Your task to perform on an android device: Go to calendar. Show me events next week Image 0: 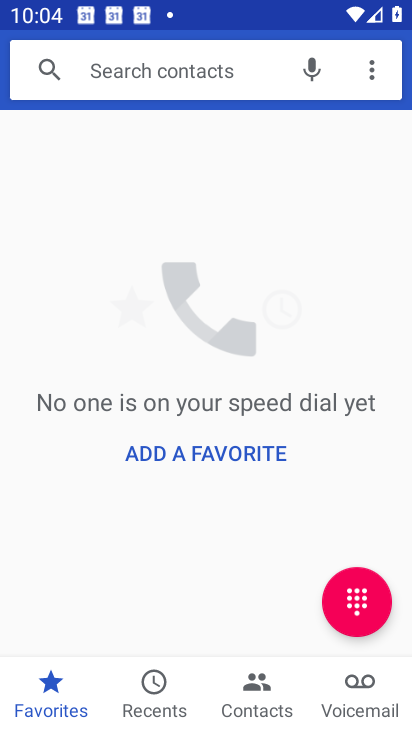
Step 0: press home button
Your task to perform on an android device: Go to calendar. Show me events next week Image 1: 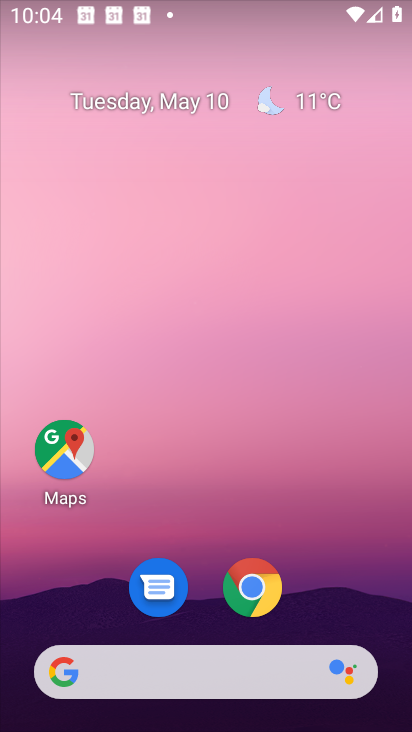
Step 1: drag from (348, 570) to (345, 91)
Your task to perform on an android device: Go to calendar. Show me events next week Image 2: 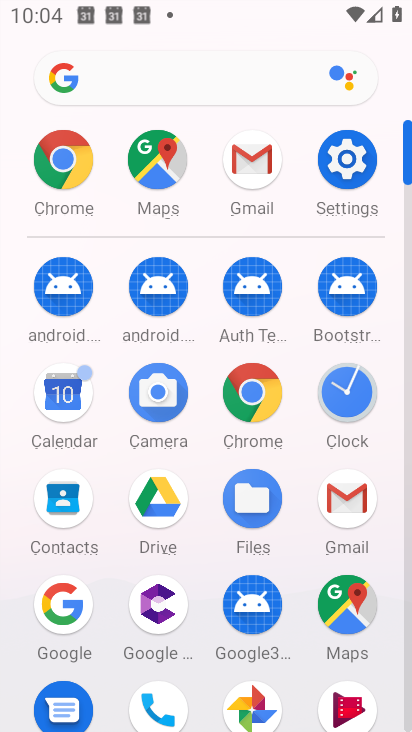
Step 2: click (65, 391)
Your task to perform on an android device: Go to calendar. Show me events next week Image 3: 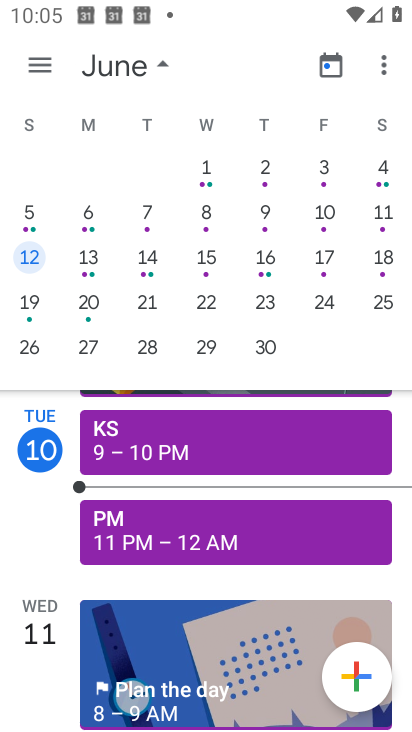
Step 3: drag from (111, 175) to (331, 172)
Your task to perform on an android device: Go to calendar. Show me events next week Image 4: 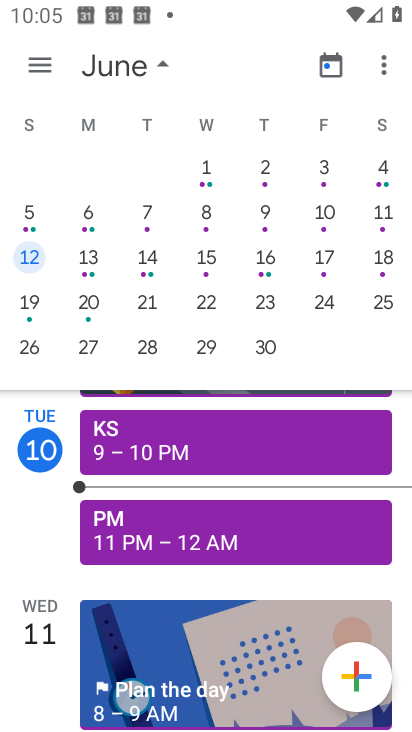
Step 4: drag from (39, 191) to (408, 202)
Your task to perform on an android device: Go to calendar. Show me events next week Image 5: 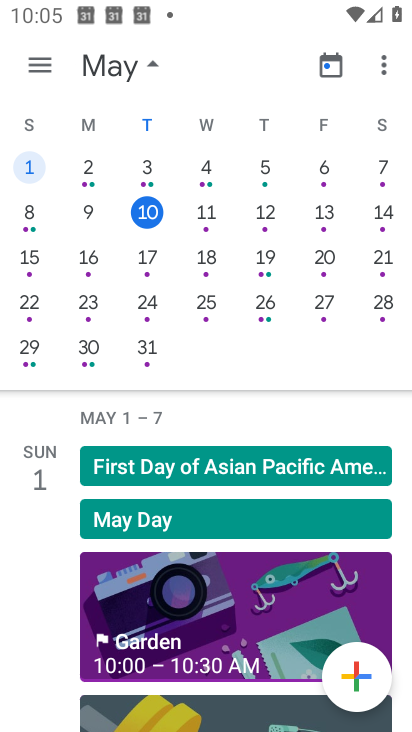
Step 5: click (37, 262)
Your task to perform on an android device: Go to calendar. Show me events next week Image 6: 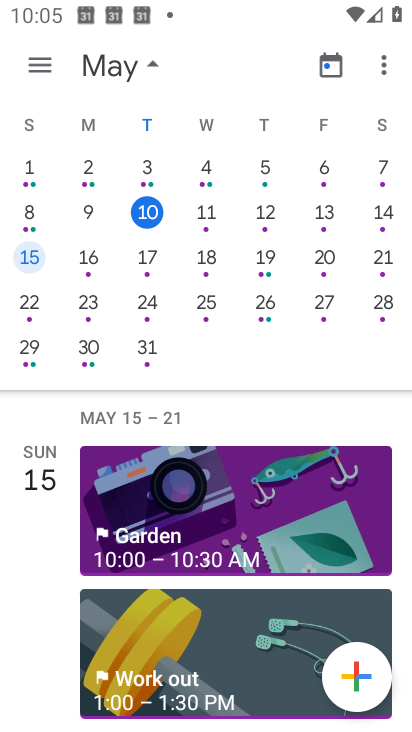
Step 6: task complete